Your task to perform on an android device: Turn on the flashlight Image 0: 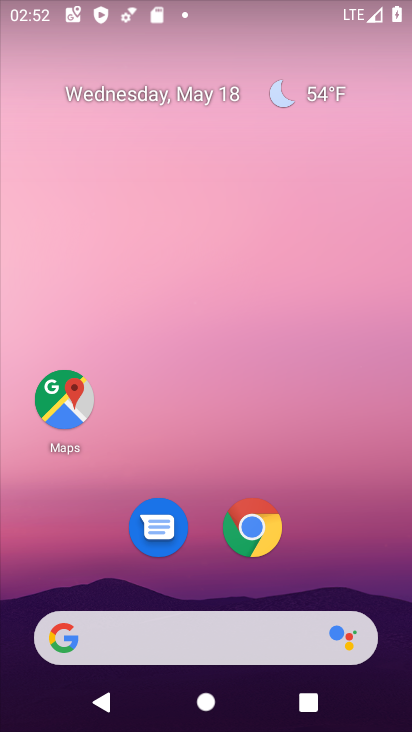
Step 0: drag from (192, 581) to (126, 27)
Your task to perform on an android device: Turn on the flashlight Image 1: 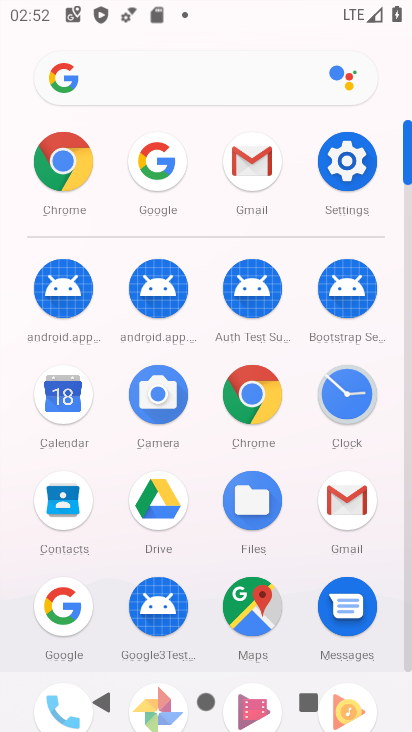
Step 1: click (351, 137)
Your task to perform on an android device: Turn on the flashlight Image 2: 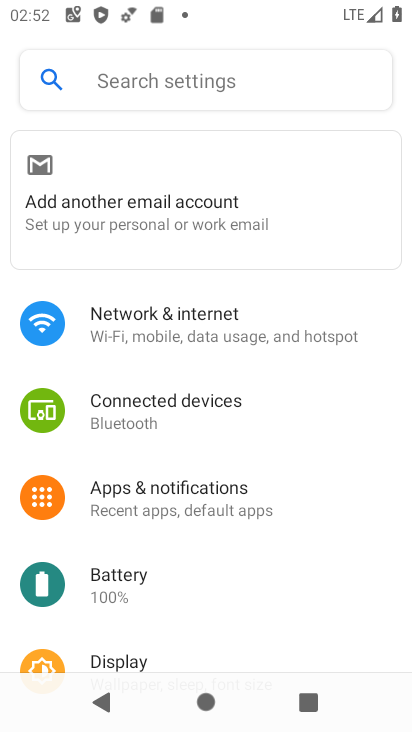
Step 2: task complete